Your task to perform on an android device: What's on my calendar tomorrow? Image 0: 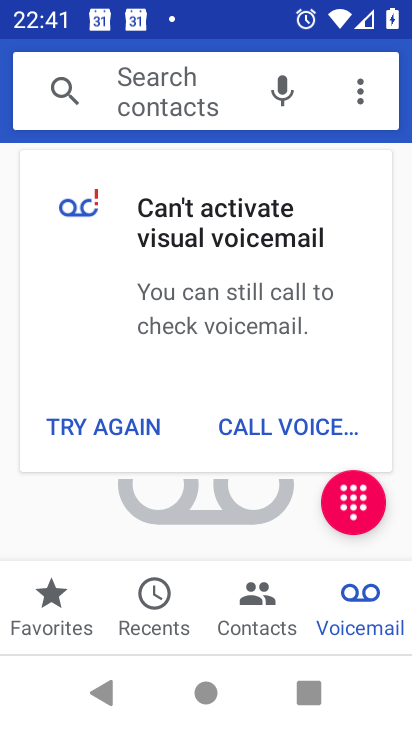
Step 0: press home button
Your task to perform on an android device: What's on my calendar tomorrow? Image 1: 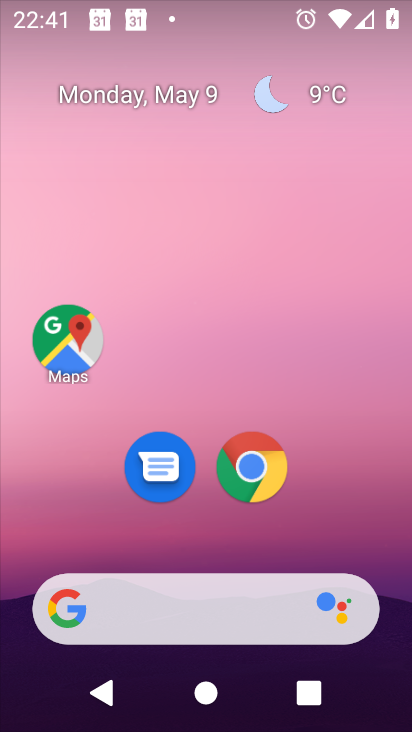
Step 1: drag from (377, 592) to (319, 10)
Your task to perform on an android device: What's on my calendar tomorrow? Image 2: 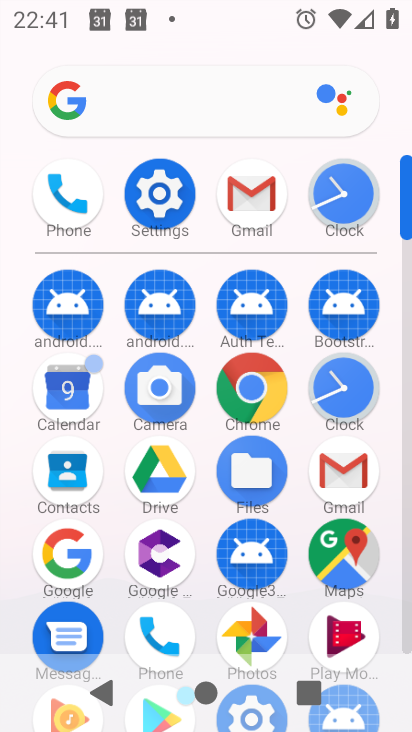
Step 2: click (70, 390)
Your task to perform on an android device: What's on my calendar tomorrow? Image 3: 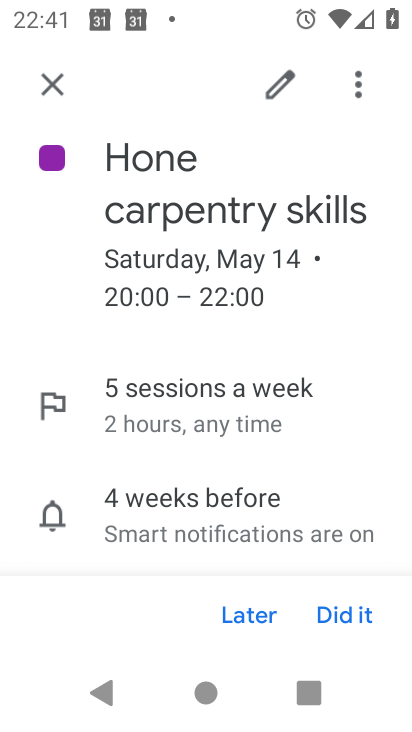
Step 3: click (60, 85)
Your task to perform on an android device: What's on my calendar tomorrow? Image 4: 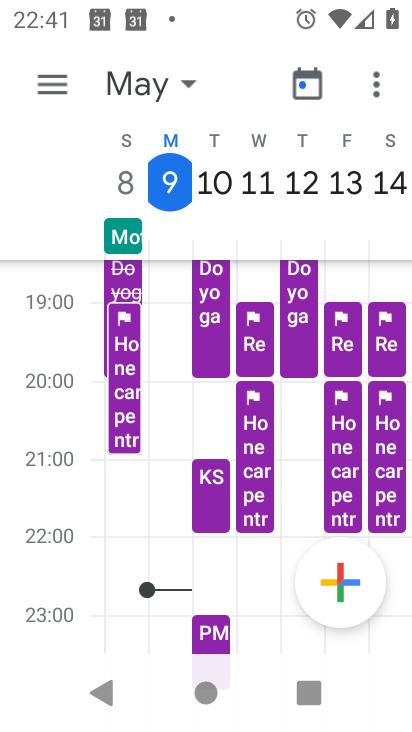
Step 4: click (62, 88)
Your task to perform on an android device: What's on my calendar tomorrow? Image 5: 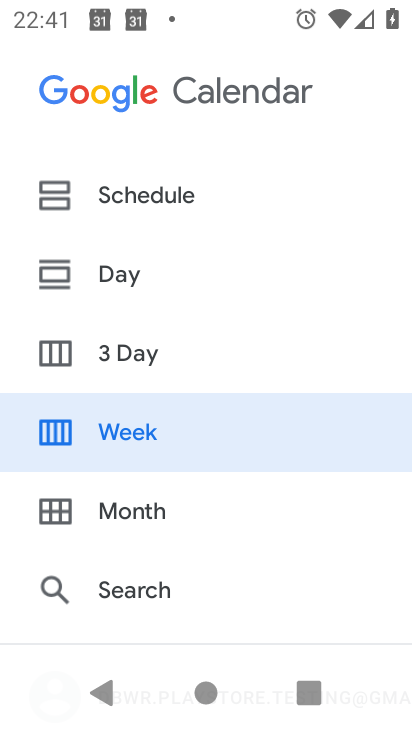
Step 5: click (70, 197)
Your task to perform on an android device: What's on my calendar tomorrow? Image 6: 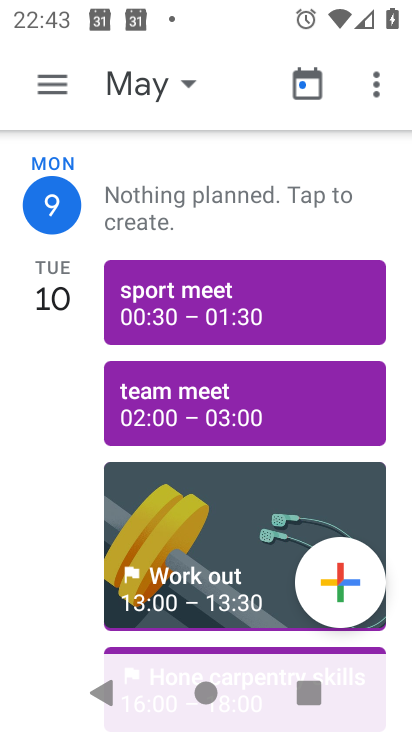
Step 6: click (178, 321)
Your task to perform on an android device: What's on my calendar tomorrow? Image 7: 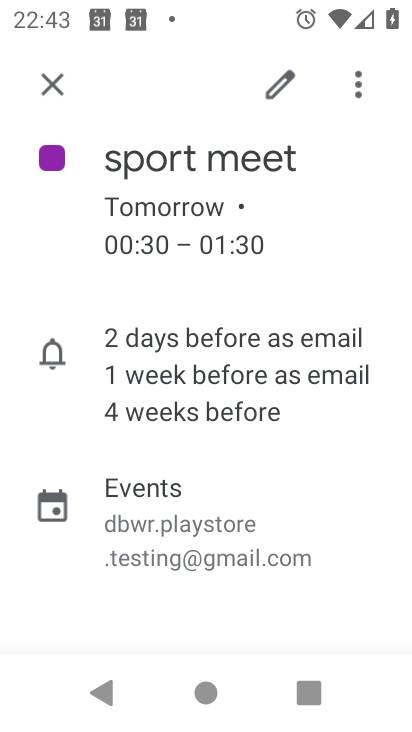
Step 7: task complete